Your task to perform on an android device: move an email to a new category in the gmail app Image 0: 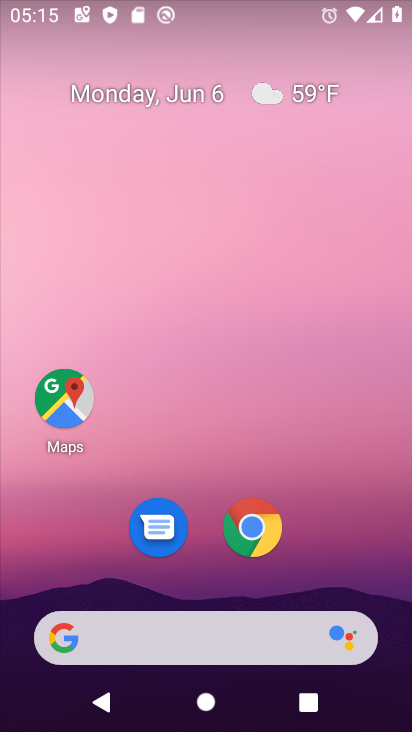
Step 0: press home button
Your task to perform on an android device: move an email to a new category in the gmail app Image 1: 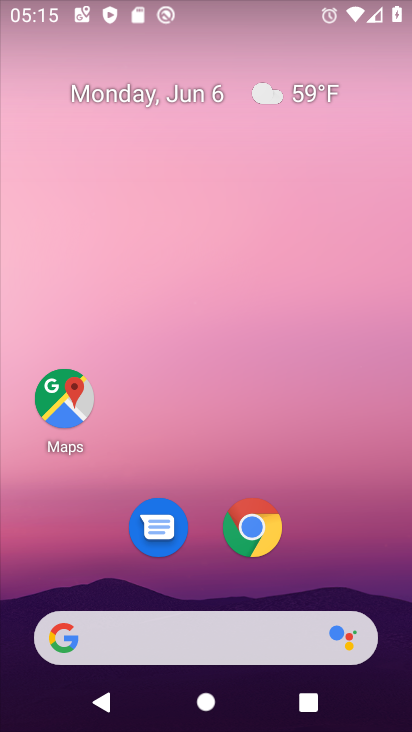
Step 1: drag from (392, 714) to (296, 96)
Your task to perform on an android device: move an email to a new category in the gmail app Image 2: 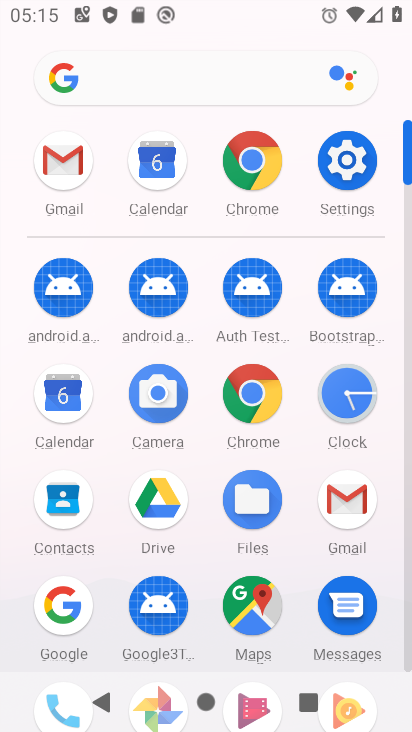
Step 2: click (336, 493)
Your task to perform on an android device: move an email to a new category in the gmail app Image 3: 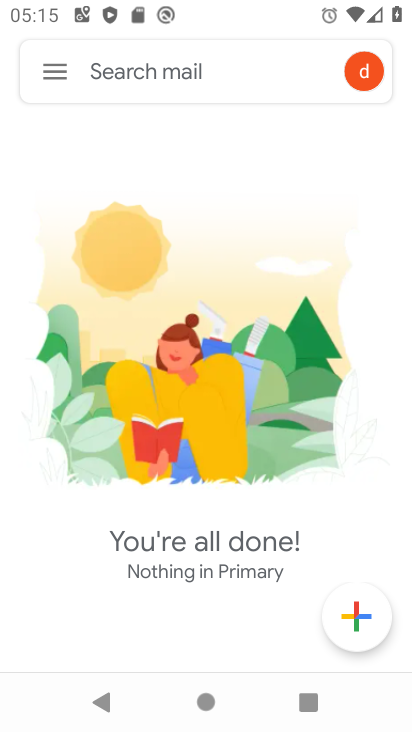
Step 3: click (56, 72)
Your task to perform on an android device: move an email to a new category in the gmail app Image 4: 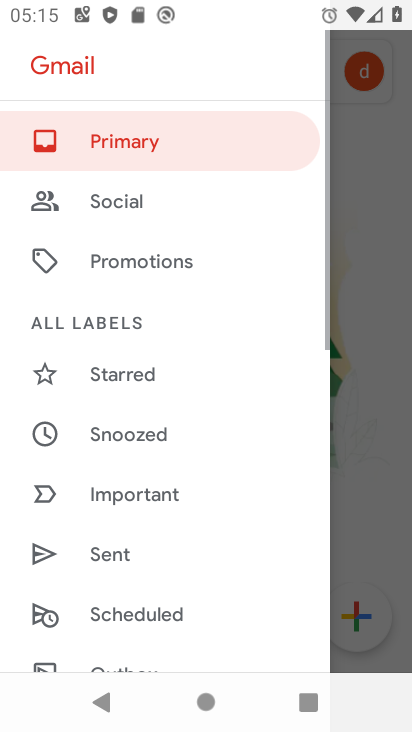
Step 4: click (120, 143)
Your task to perform on an android device: move an email to a new category in the gmail app Image 5: 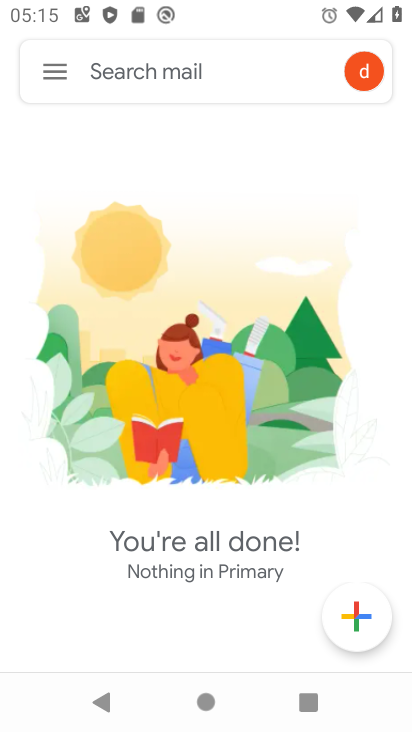
Step 5: task complete